Your task to perform on an android device: Open calendar and show me the fourth week of next month Image 0: 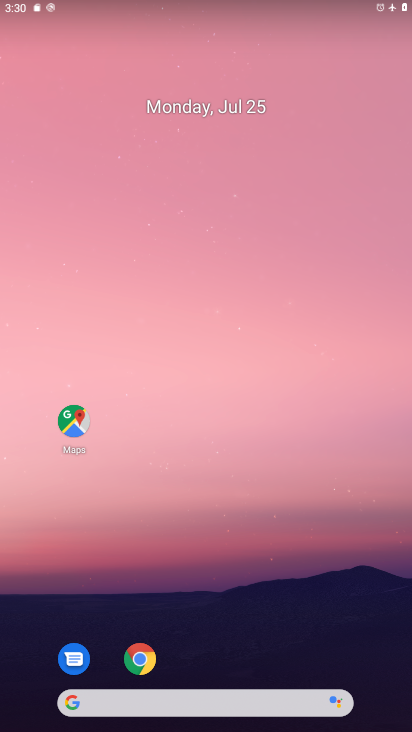
Step 0: drag from (171, 605) to (177, 99)
Your task to perform on an android device: Open calendar and show me the fourth week of next month Image 1: 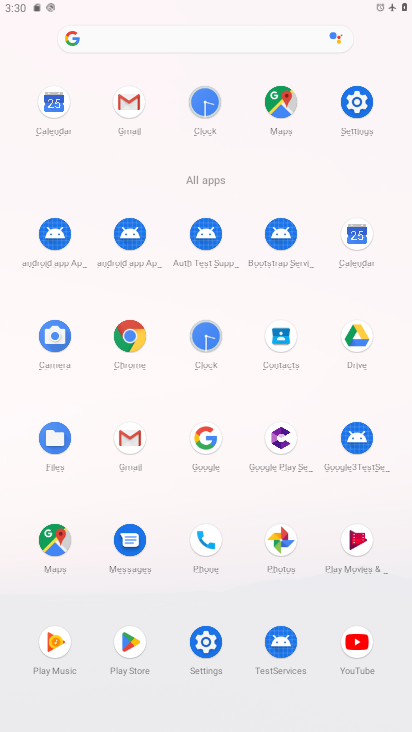
Step 1: click (363, 251)
Your task to perform on an android device: Open calendar and show me the fourth week of next month Image 2: 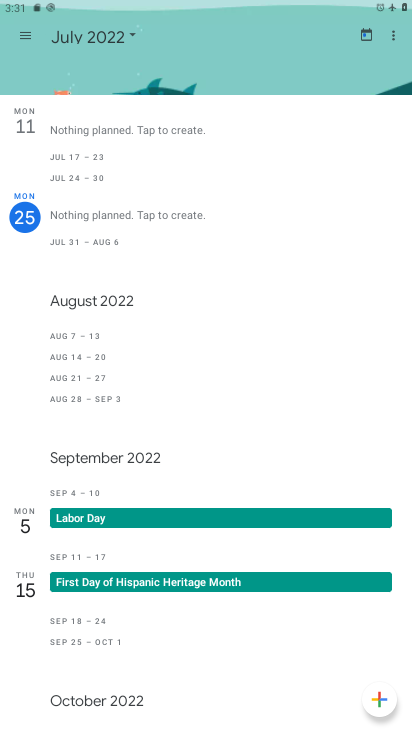
Step 2: click (92, 38)
Your task to perform on an android device: Open calendar and show me the fourth week of next month Image 3: 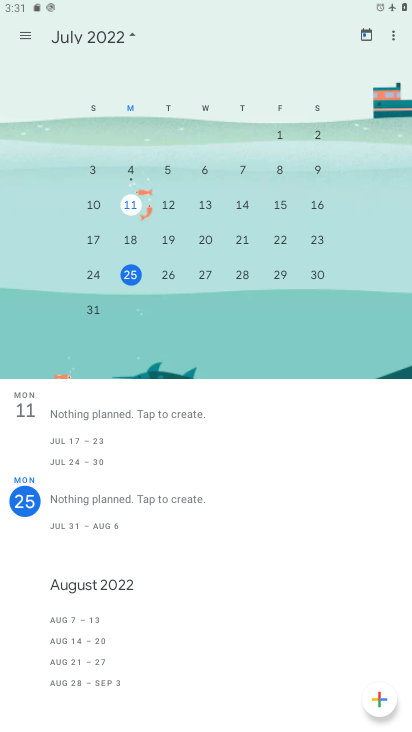
Step 3: drag from (325, 203) to (6, 239)
Your task to perform on an android device: Open calendar and show me the fourth week of next month Image 4: 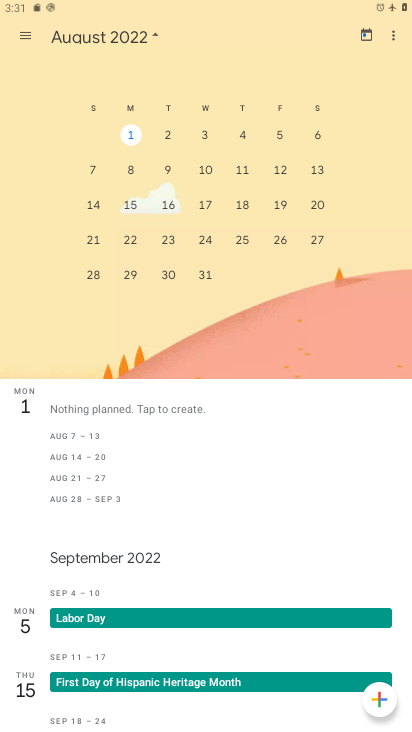
Step 4: click (95, 239)
Your task to perform on an android device: Open calendar and show me the fourth week of next month Image 5: 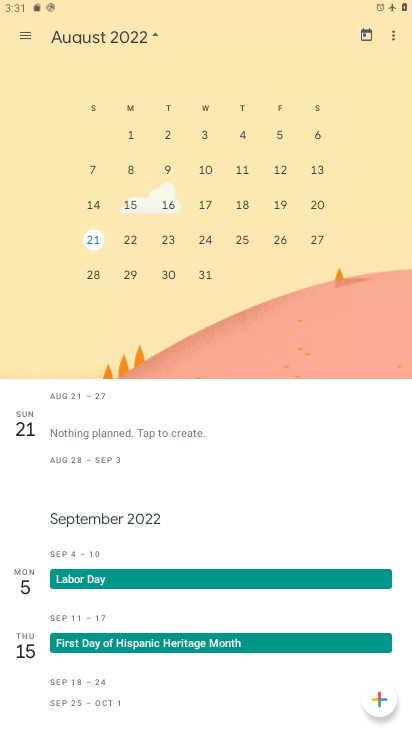
Step 5: click (29, 32)
Your task to perform on an android device: Open calendar and show me the fourth week of next month Image 6: 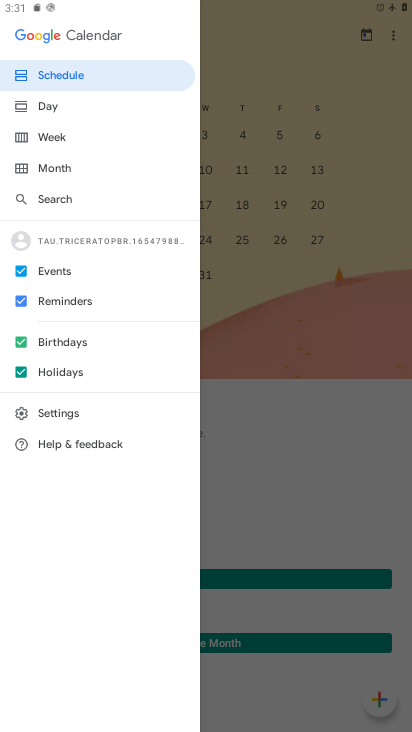
Step 6: click (54, 136)
Your task to perform on an android device: Open calendar and show me the fourth week of next month Image 7: 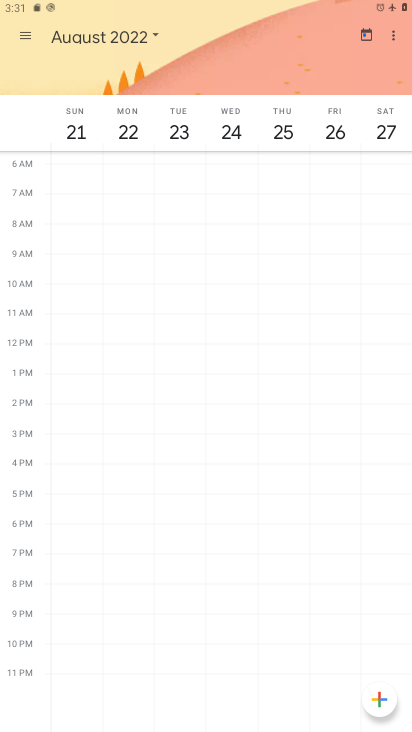
Step 7: task complete